Your task to perform on an android device: check out phone information Image 0: 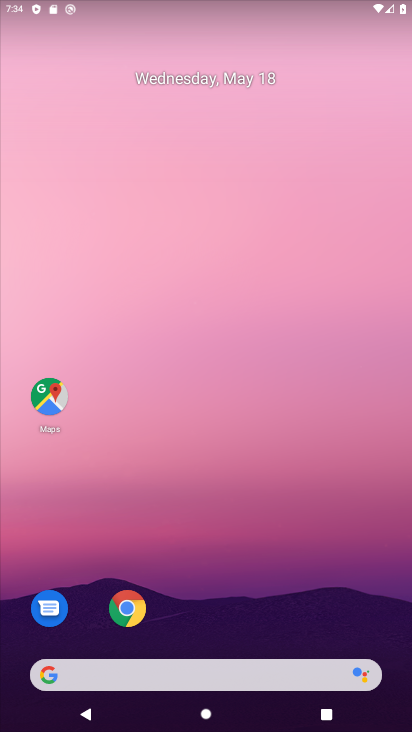
Step 0: drag from (265, 572) to (284, 16)
Your task to perform on an android device: check out phone information Image 1: 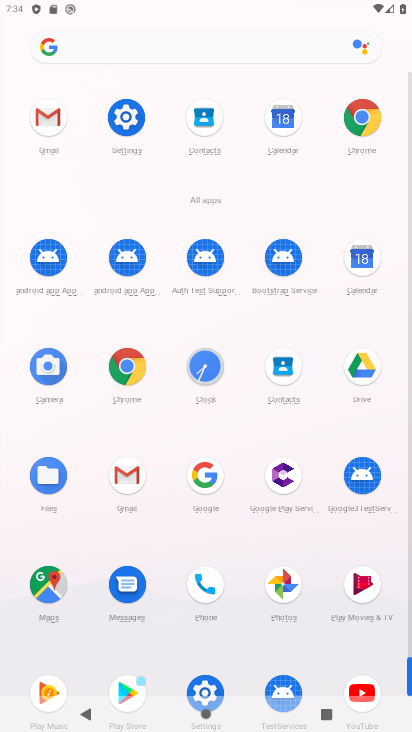
Step 1: click (207, 674)
Your task to perform on an android device: check out phone information Image 2: 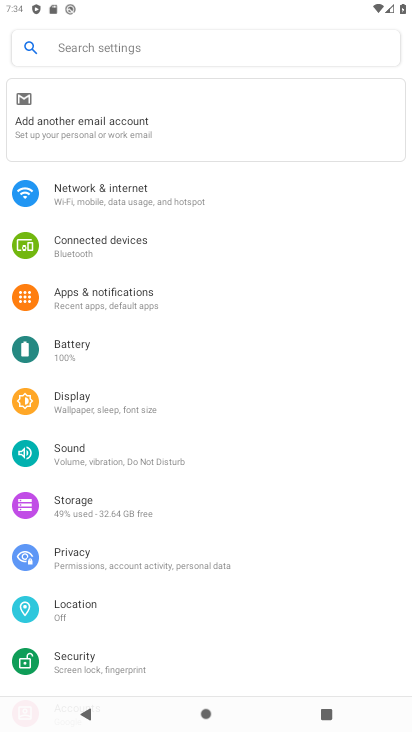
Step 2: drag from (189, 531) to (167, 267)
Your task to perform on an android device: check out phone information Image 3: 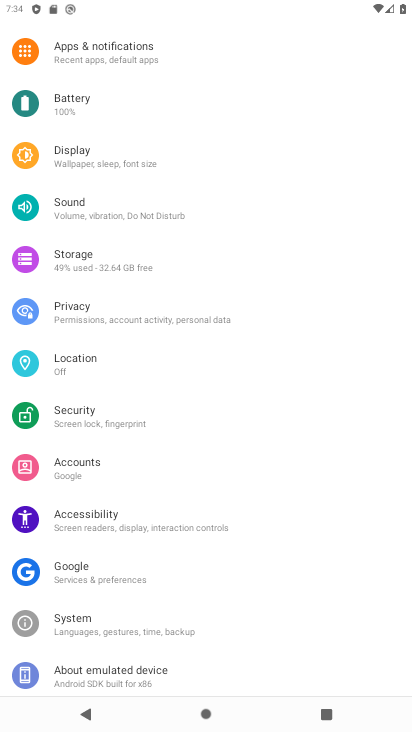
Step 3: drag from (174, 491) to (165, 219)
Your task to perform on an android device: check out phone information Image 4: 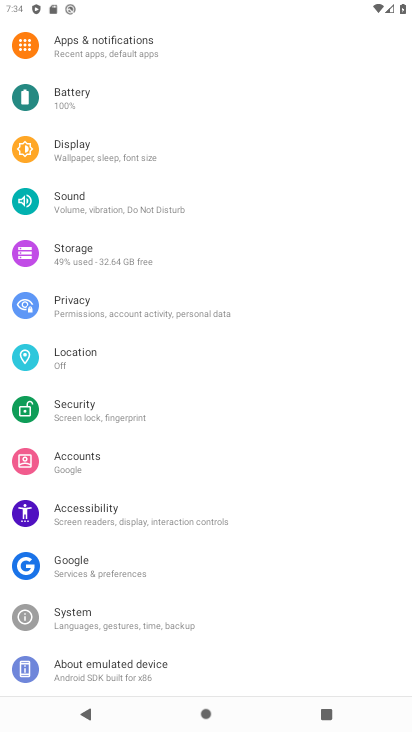
Step 4: click (97, 679)
Your task to perform on an android device: check out phone information Image 5: 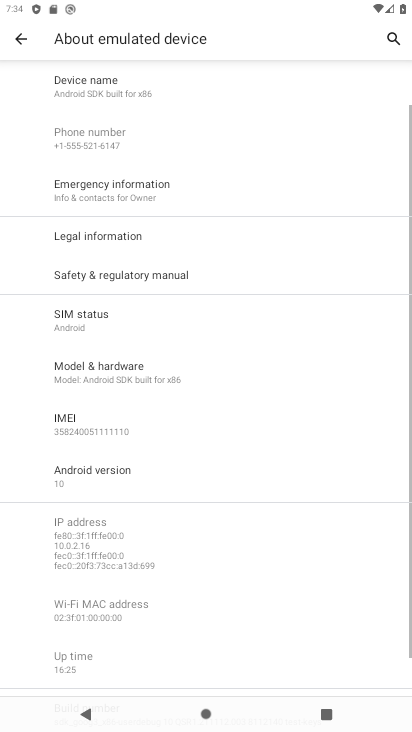
Step 5: task complete